Your task to perform on an android device: toggle notifications settings in the gmail app Image 0: 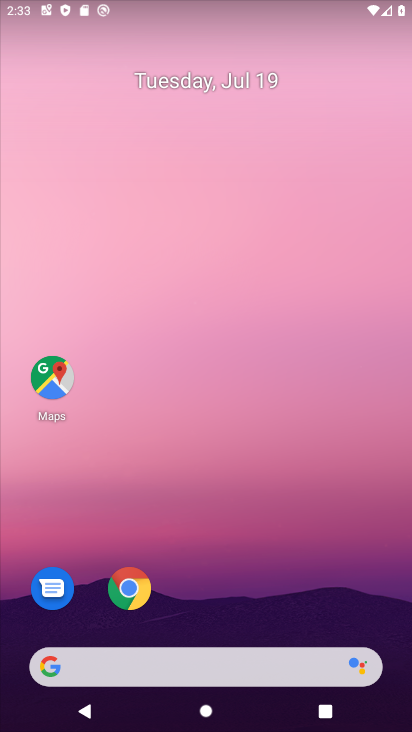
Step 0: drag from (177, 603) to (194, 241)
Your task to perform on an android device: toggle notifications settings in the gmail app Image 1: 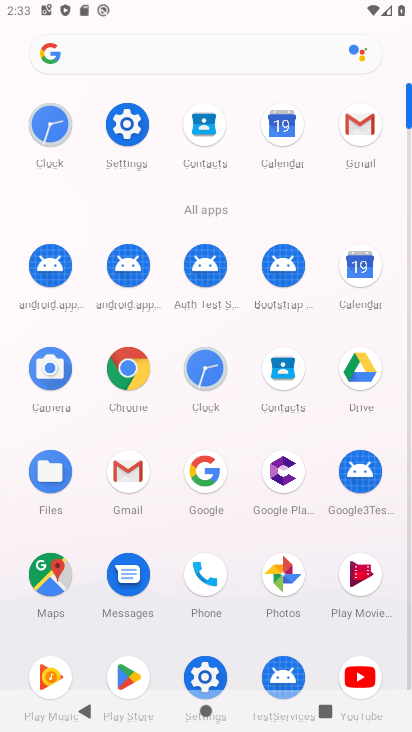
Step 1: click (355, 134)
Your task to perform on an android device: toggle notifications settings in the gmail app Image 2: 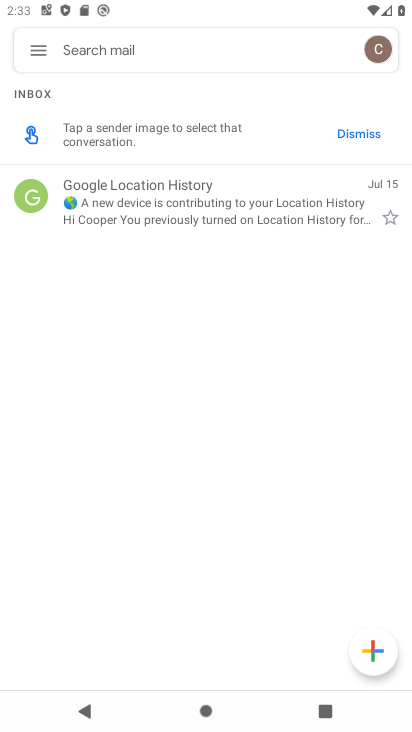
Step 2: click (37, 49)
Your task to perform on an android device: toggle notifications settings in the gmail app Image 3: 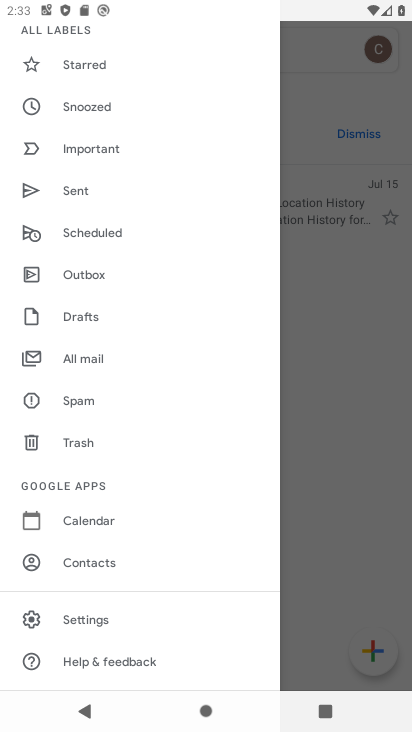
Step 3: click (79, 619)
Your task to perform on an android device: toggle notifications settings in the gmail app Image 4: 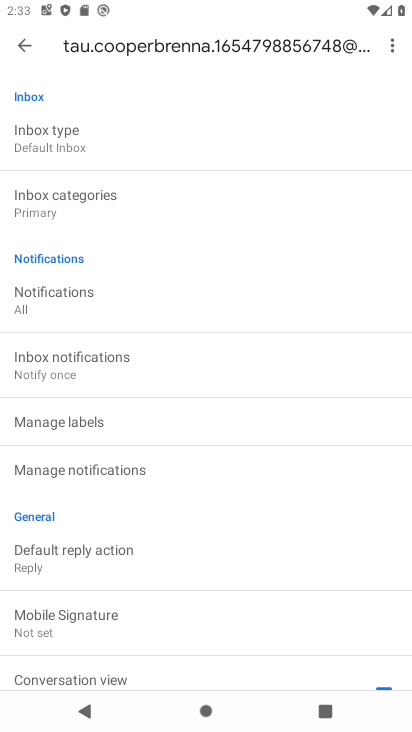
Step 4: click (72, 472)
Your task to perform on an android device: toggle notifications settings in the gmail app Image 5: 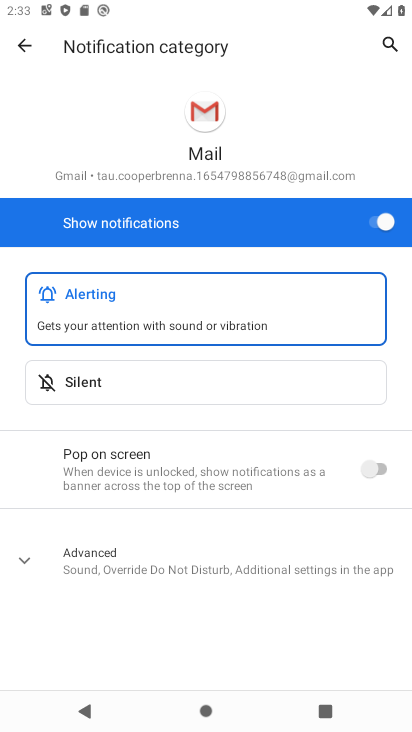
Step 5: click (369, 221)
Your task to perform on an android device: toggle notifications settings in the gmail app Image 6: 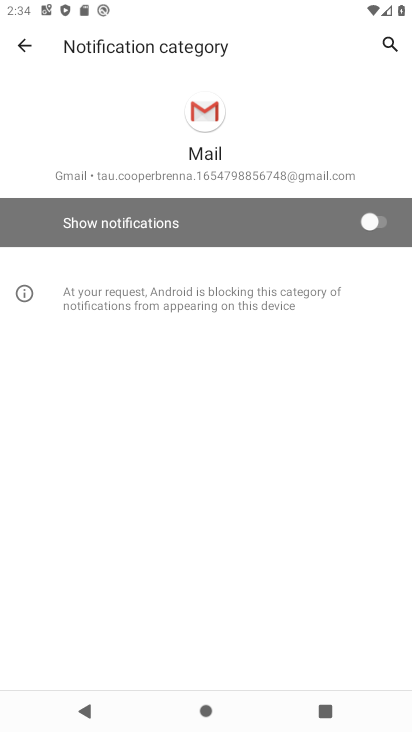
Step 6: task complete